Your task to perform on an android device: Open Chrome and go to settings Image 0: 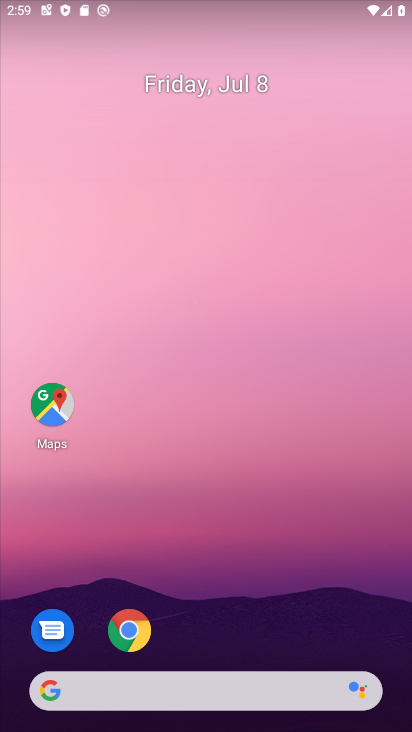
Step 0: click (125, 630)
Your task to perform on an android device: Open Chrome and go to settings Image 1: 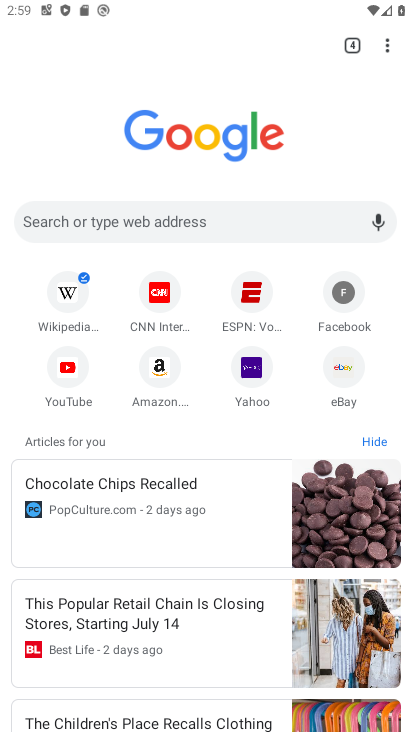
Step 1: click (386, 48)
Your task to perform on an android device: Open Chrome and go to settings Image 2: 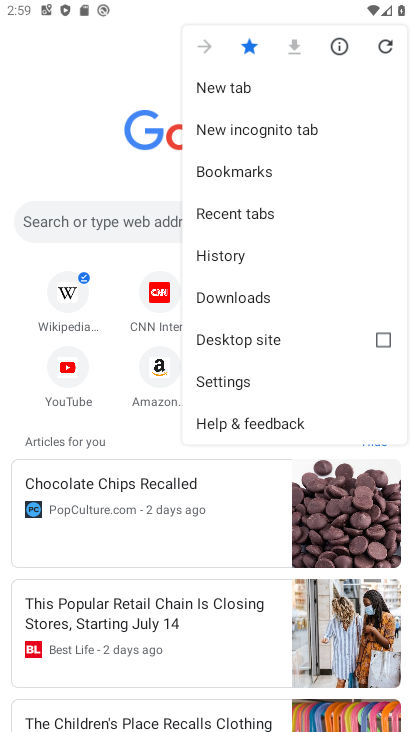
Step 2: click (262, 370)
Your task to perform on an android device: Open Chrome and go to settings Image 3: 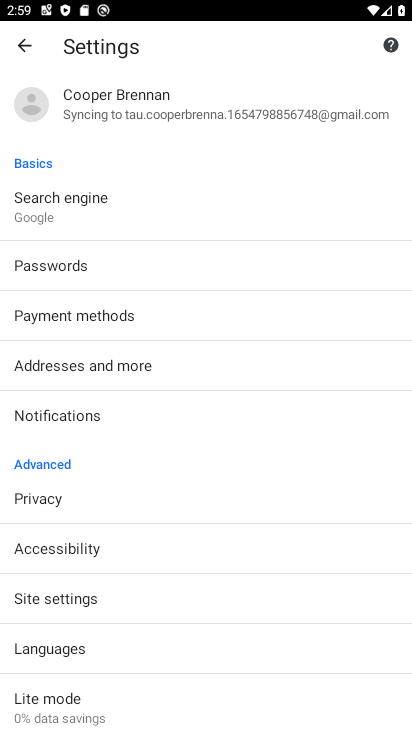
Step 3: drag from (164, 624) to (164, 458)
Your task to perform on an android device: Open Chrome and go to settings Image 4: 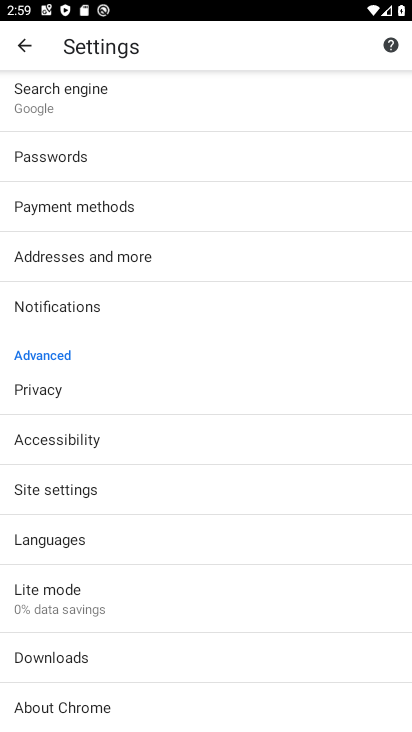
Step 4: drag from (164, 458) to (164, 296)
Your task to perform on an android device: Open Chrome and go to settings Image 5: 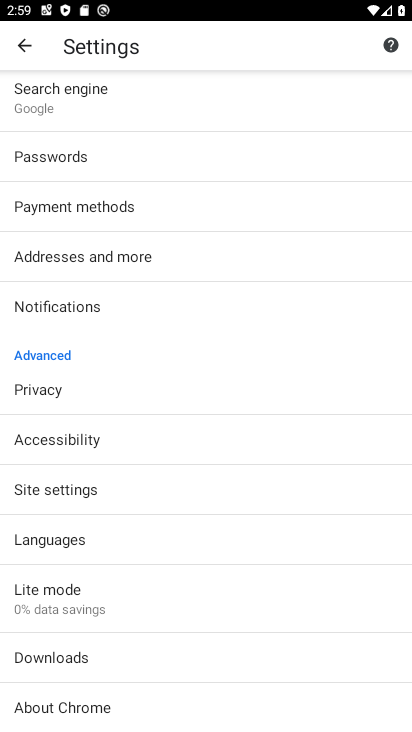
Step 5: click (191, 487)
Your task to perform on an android device: Open Chrome and go to settings Image 6: 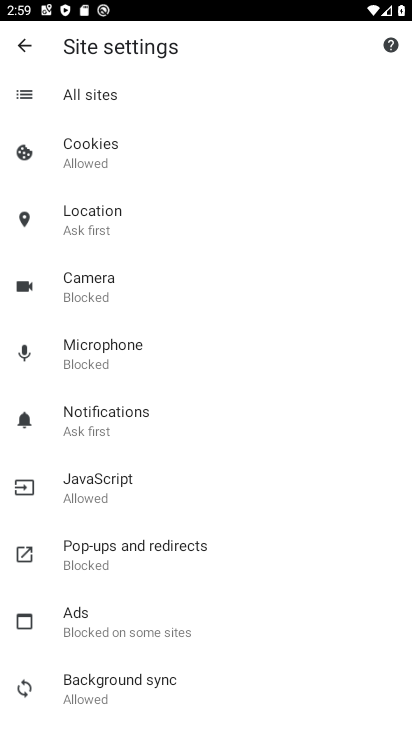
Step 6: task complete